Your task to perform on an android device: Open location settings Image 0: 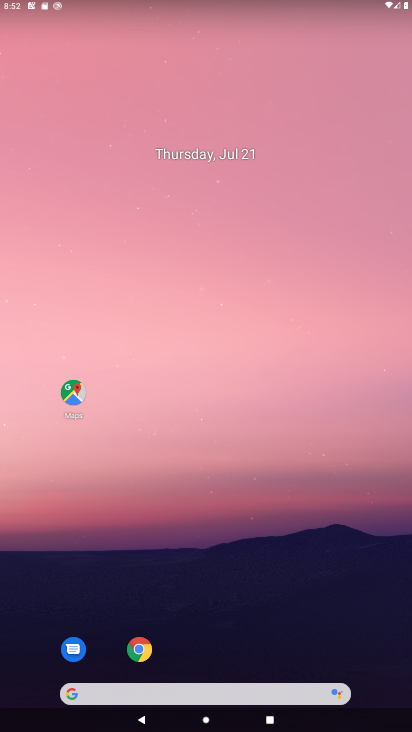
Step 0: drag from (186, 655) to (265, 79)
Your task to perform on an android device: Open location settings Image 1: 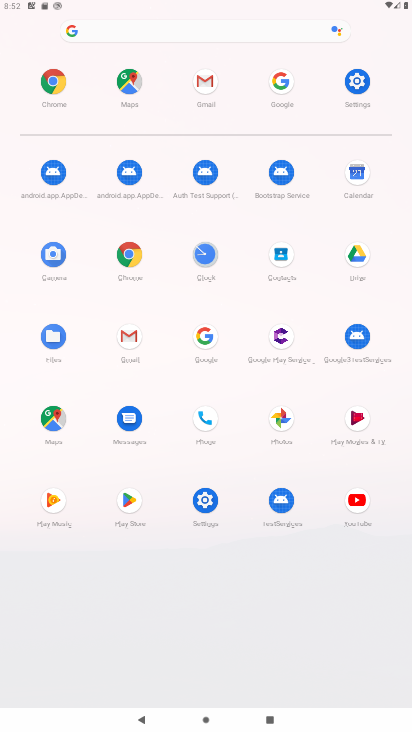
Step 1: click (195, 502)
Your task to perform on an android device: Open location settings Image 2: 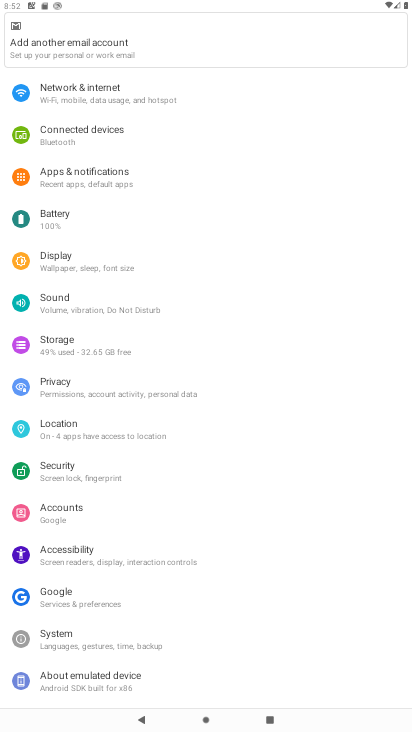
Step 2: click (84, 423)
Your task to perform on an android device: Open location settings Image 3: 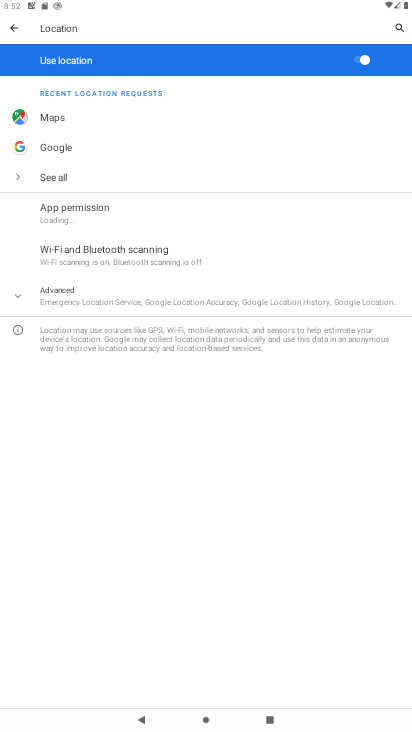
Step 3: task complete